Your task to perform on an android device: Go to accessibility settings Image 0: 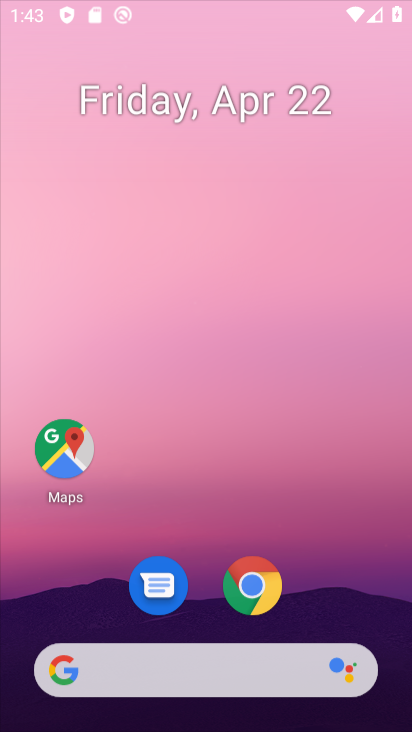
Step 0: click (224, 0)
Your task to perform on an android device: Go to accessibility settings Image 1: 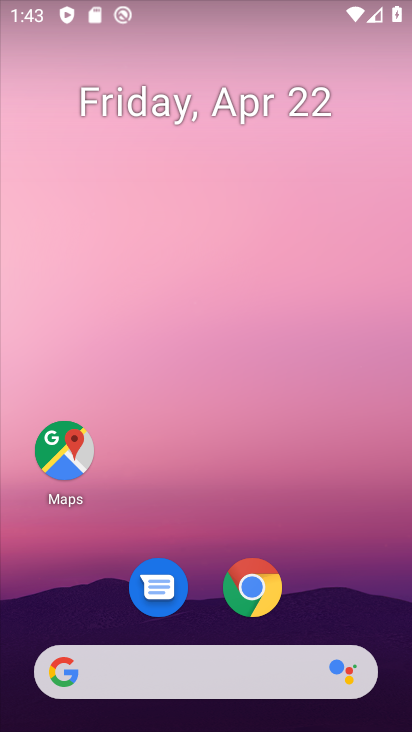
Step 1: drag from (208, 604) to (220, 228)
Your task to perform on an android device: Go to accessibility settings Image 2: 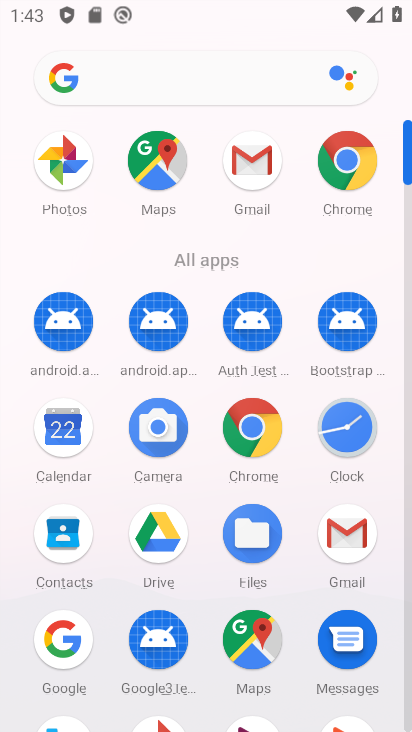
Step 2: drag from (206, 563) to (210, 98)
Your task to perform on an android device: Go to accessibility settings Image 3: 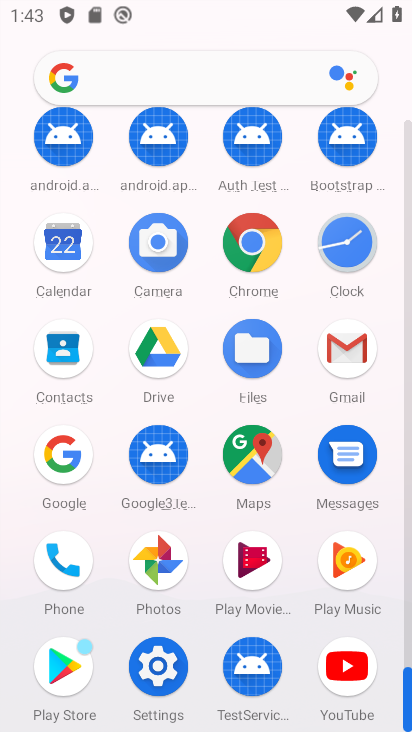
Step 3: click (163, 659)
Your task to perform on an android device: Go to accessibility settings Image 4: 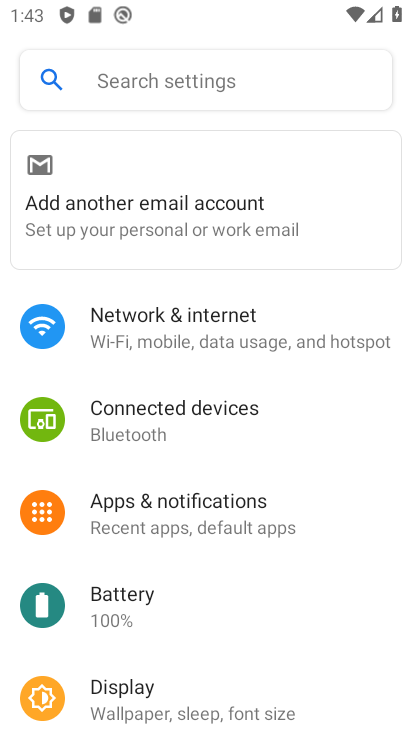
Step 4: drag from (219, 632) to (273, 156)
Your task to perform on an android device: Go to accessibility settings Image 5: 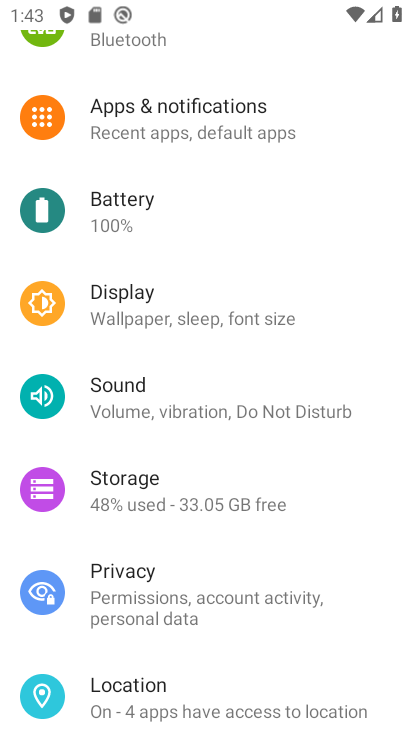
Step 5: drag from (199, 674) to (264, 212)
Your task to perform on an android device: Go to accessibility settings Image 6: 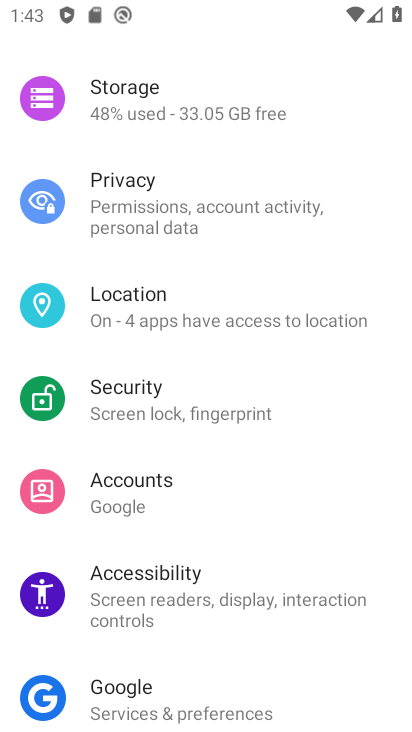
Step 6: click (189, 574)
Your task to perform on an android device: Go to accessibility settings Image 7: 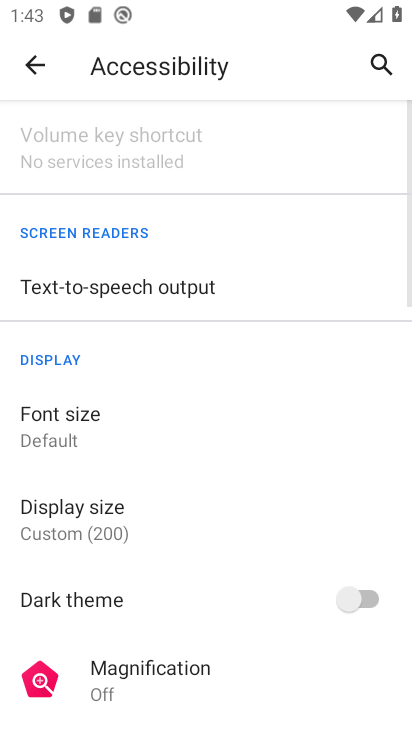
Step 7: task complete